Your task to perform on an android device: toggle show notifications on the lock screen Image 0: 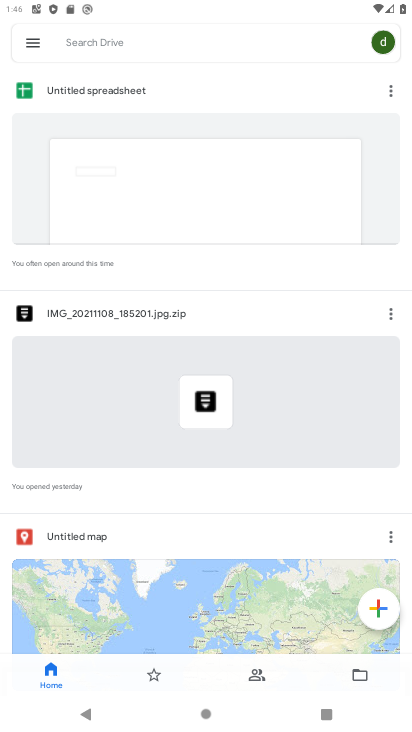
Step 0: press home button
Your task to perform on an android device: toggle show notifications on the lock screen Image 1: 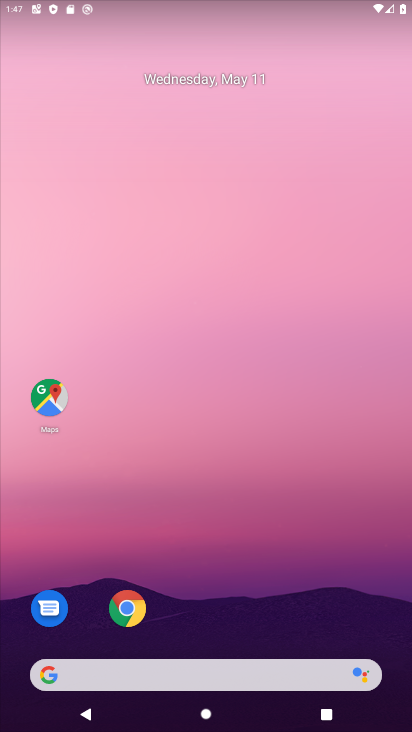
Step 1: drag from (288, 590) to (282, 302)
Your task to perform on an android device: toggle show notifications on the lock screen Image 2: 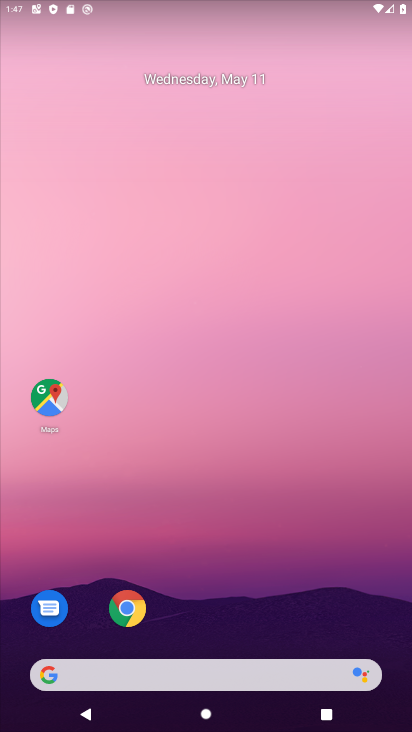
Step 2: drag from (228, 12) to (383, 601)
Your task to perform on an android device: toggle show notifications on the lock screen Image 3: 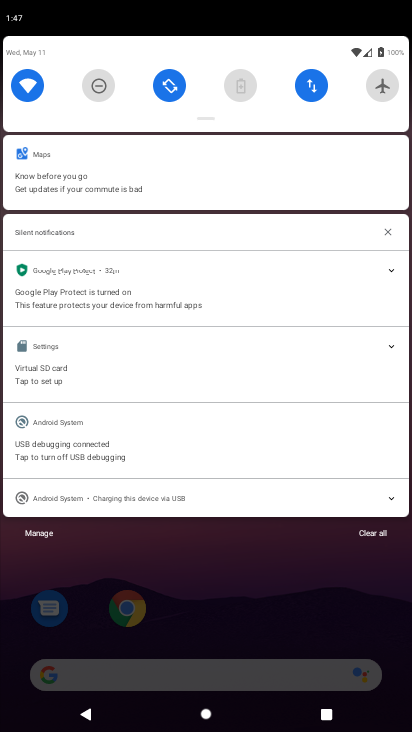
Step 3: click (208, 570)
Your task to perform on an android device: toggle show notifications on the lock screen Image 4: 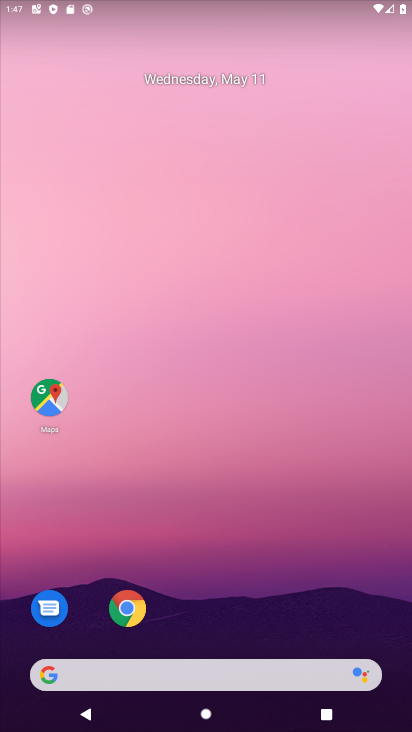
Step 4: task complete